Your task to perform on an android device: Open Chrome and go to settings Image 0: 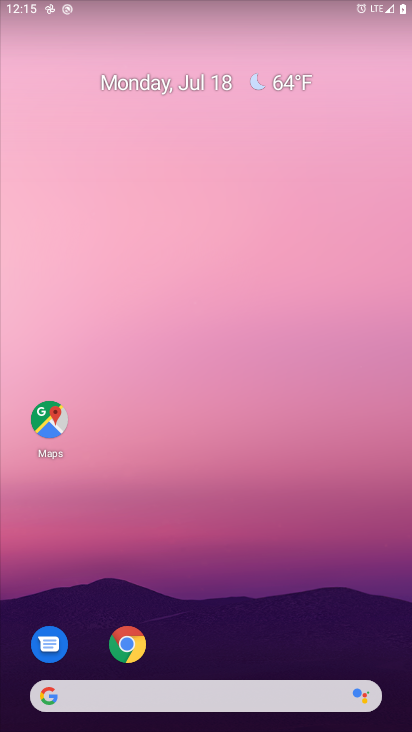
Step 0: press home button
Your task to perform on an android device: Open Chrome and go to settings Image 1: 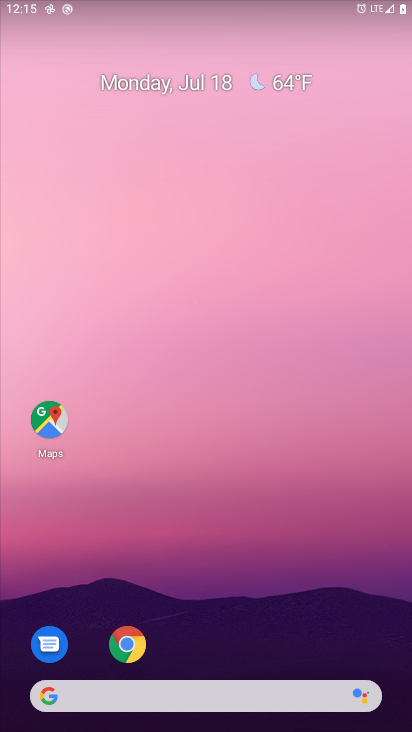
Step 1: click (129, 637)
Your task to perform on an android device: Open Chrome and go to settings Image 2: 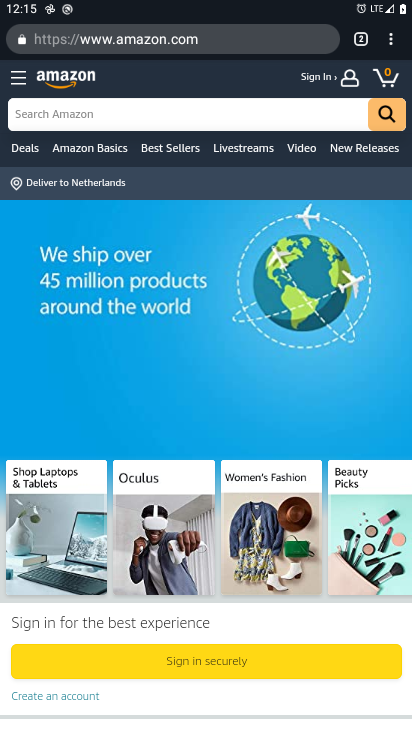
Step 2: task complete